Your task to perform on an android device: change the clock display to digital Image 0: 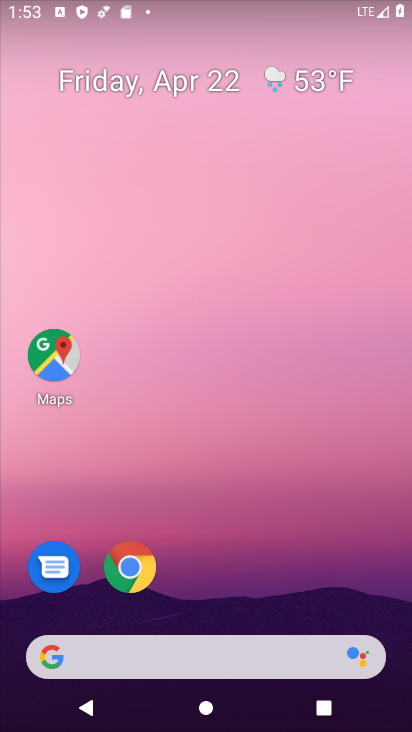
Step 0: drag from (266, 598) to (252, 35)
Your task to perform on an android device: change the clock display to digital Image 1: 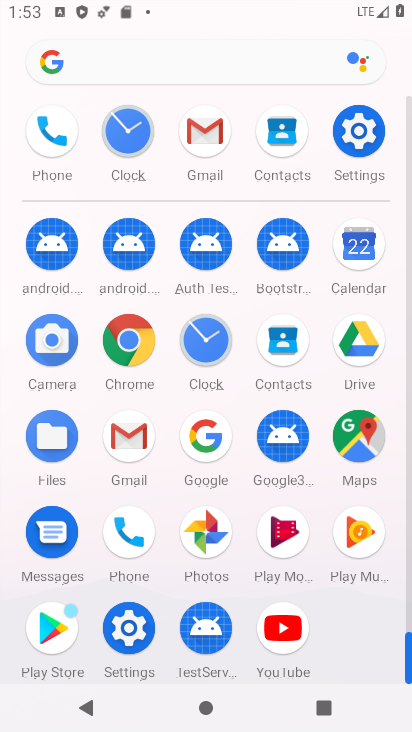
Step 1: click (197, 337)
Your task to perform on an android device: change the clock display to digital Image 2: 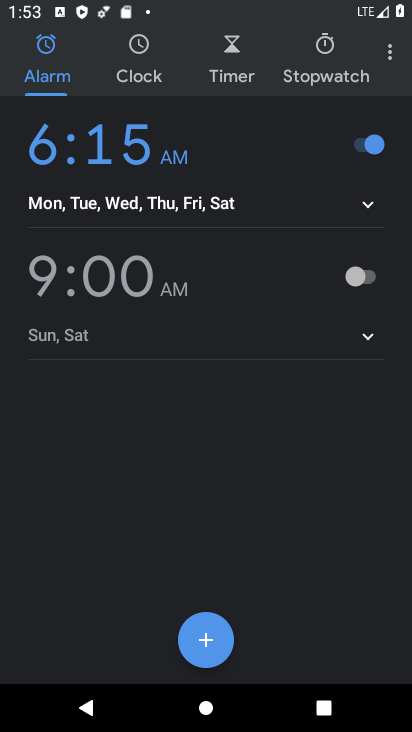
Step 2: click (382, 53)
Your task to perform on an android device: change the clock display to digital Image 3: 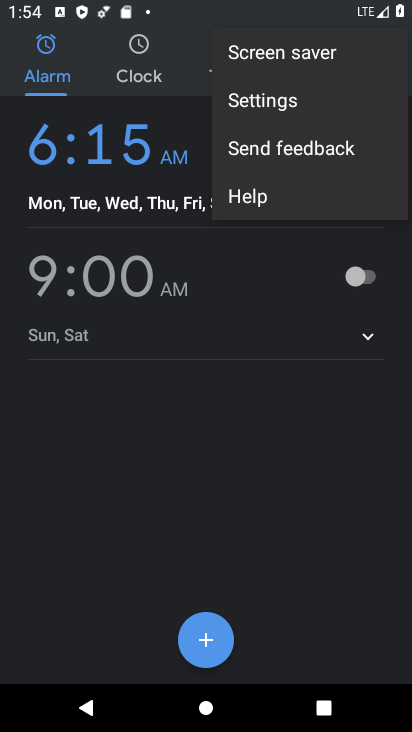
Step 3: click (265, 94)
Your task to perform on an android device: change the clock display to digital Image 4: 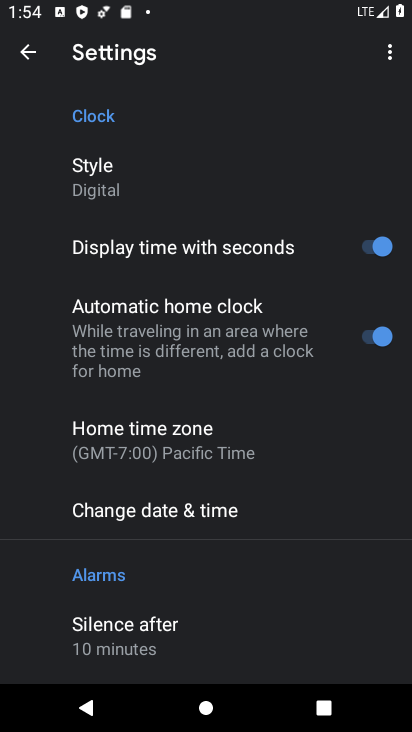
Step 4: task complete